Your task to perform on an android device: allow notifications from all sites in the chrome app Image 0: 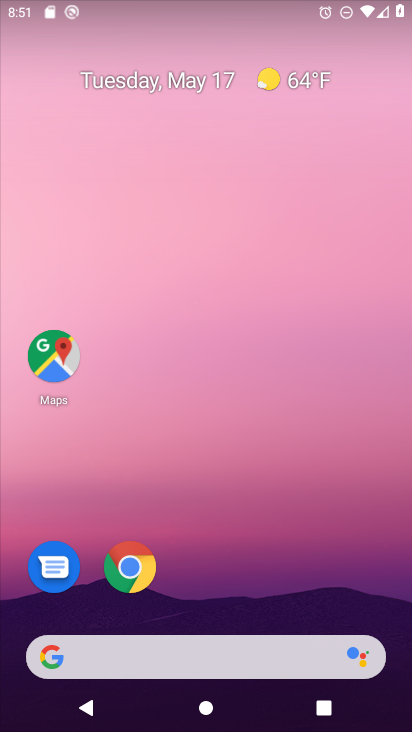
Step 0: drag from (318, 599) to (348, 465)
Your task to perform on an android device: allow notifications from all sites in the chrome app Image 1: 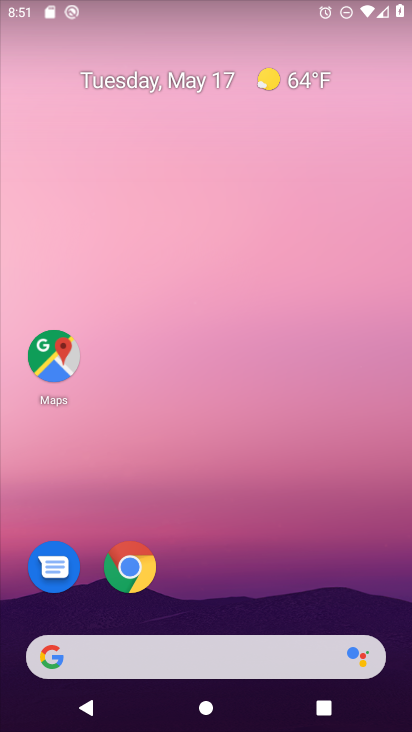
Step 1: drag from (383, 615) to (219, 119)
Your task to perform on an android device: allow notifications from all sites in the chrome app Image 2: 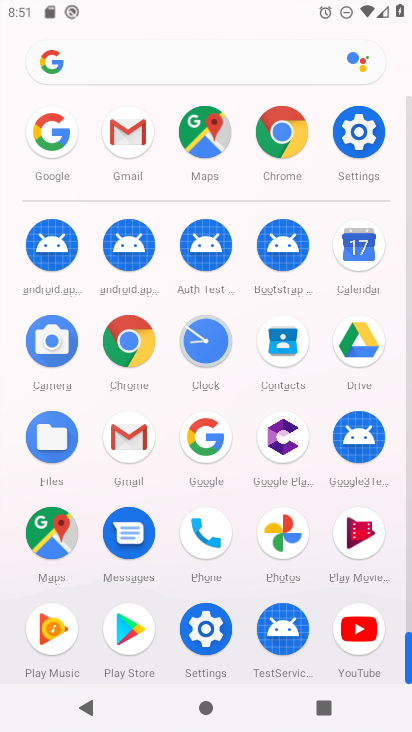
Step 2: click (303, 135)
Your task to perform on an android device: allow notifications from all sites in the chrome app Image 3: 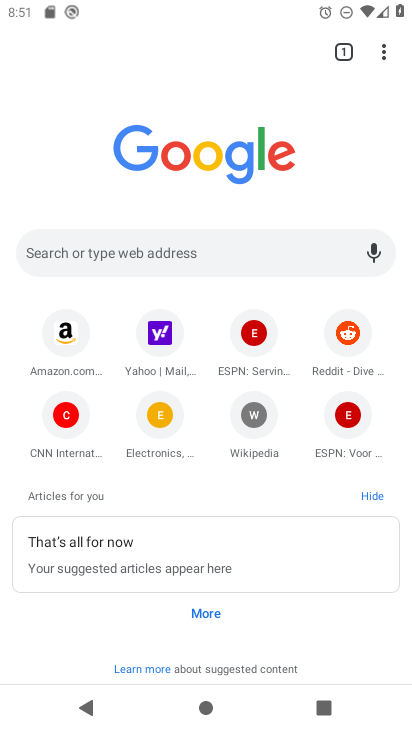
Step 3: click (388, 51)
Your task to perform on an android device: allow notifications from all sites in the chrome app Image 4: 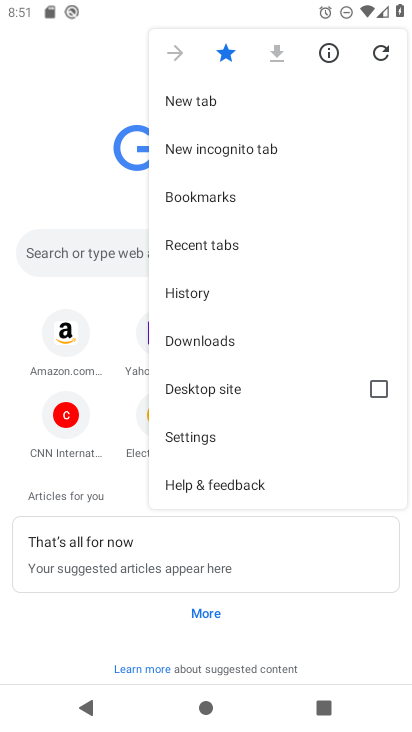
Step 4: click (206, 435)
Your task to perform on an android device: allow notifications from all sites in the chrome app Image 5: 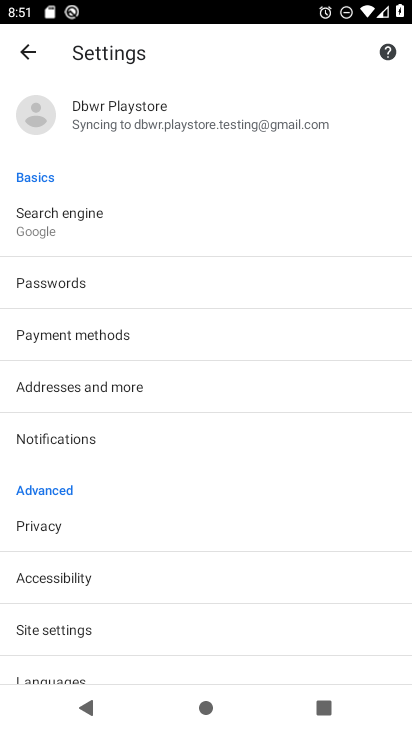
Step 5: click (72, 434)
Your task to perform on an android device: allow notifications from all sites in the chrome app Image 6: 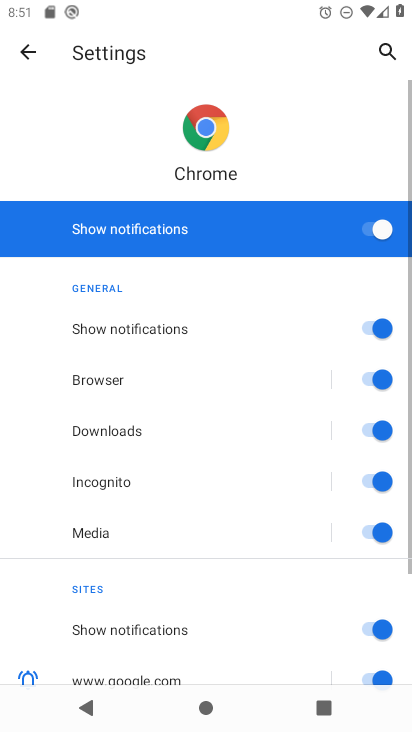
Step 6: task complete